Your task to perform on an android device: Open Reddit.com Image 0: 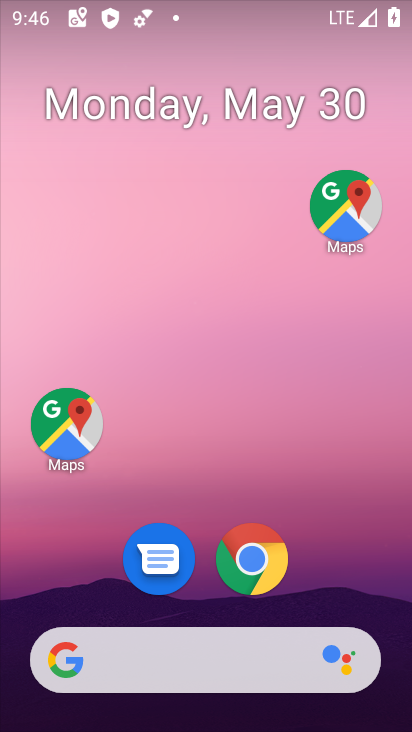
Step 0: click (245, 559)
Your task to perform on an android device: Open Reddit.com Image 1: 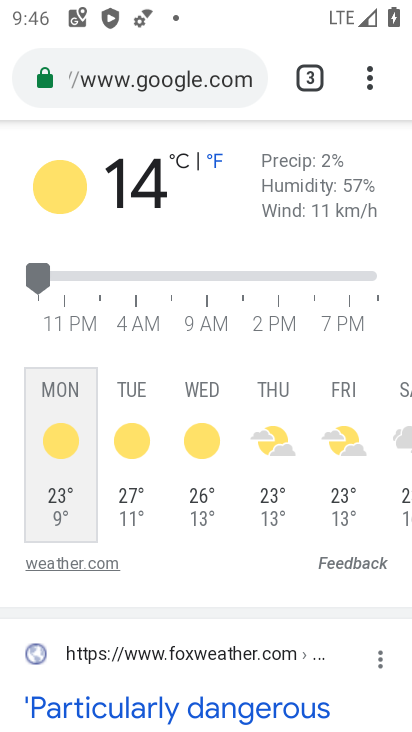
Step 1: click (198, 71)
Your task to perform on an android device: Open Reddit.com Image 2: 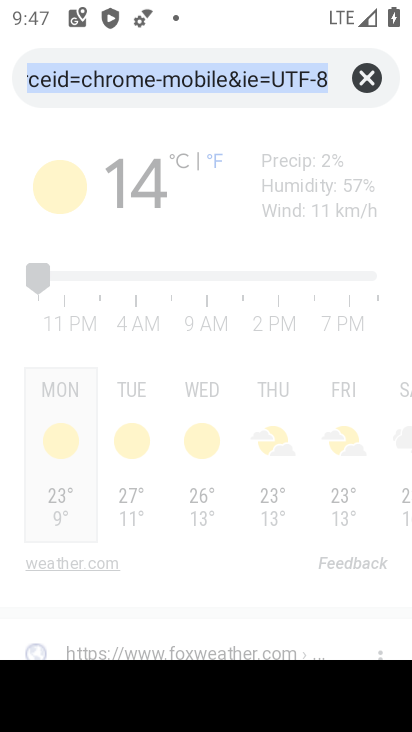
Step 2: type "reddit.com"
Your task to perform on an android device: Open Reddit.com Image 3: 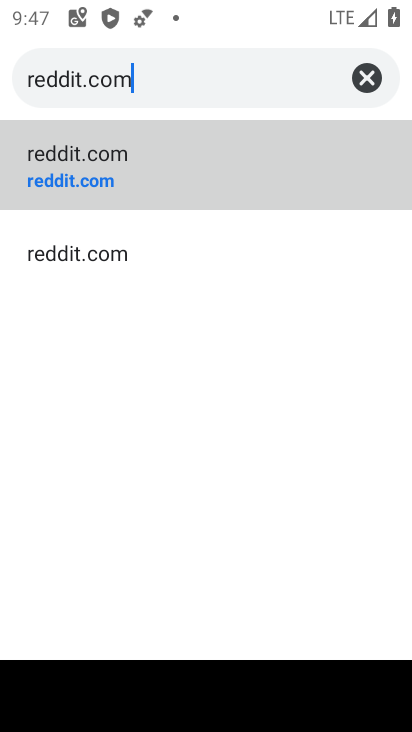
Step 3: click (61, 183)
Your task to perform on an android device: Open Reddit.com Image 4: 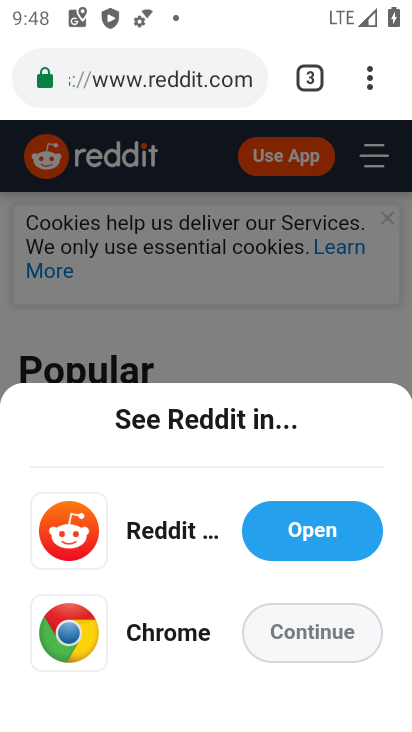
Step 4: task complete